Your task to perform on an android device: Open Google Maps Image 0: 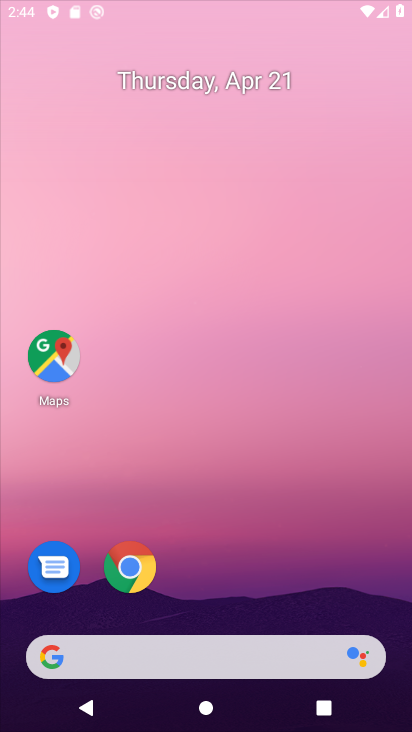
Step 0: click (176, 658)
Your task to perform on an android device: Open Google Maps Image 1: 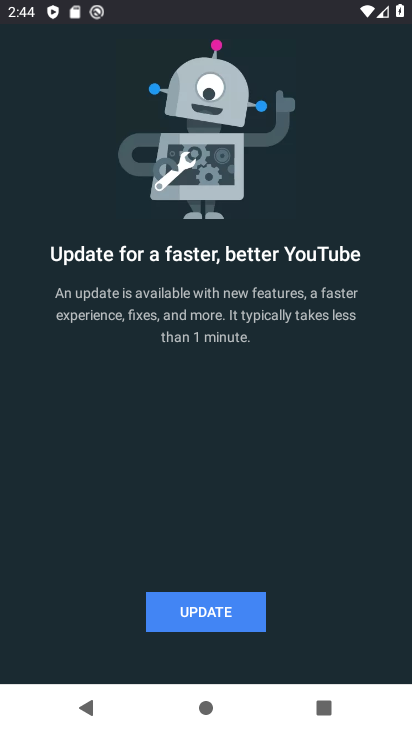
Step 1: press home button
Your task to perform on an android device: Open Google Maps Image 2: 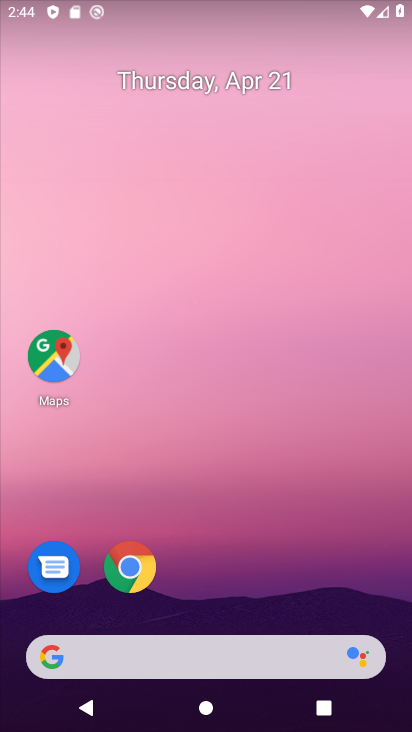
Step 2: click (61, 371)
Your task to perform on an android device: Open Google Maps Image 3: 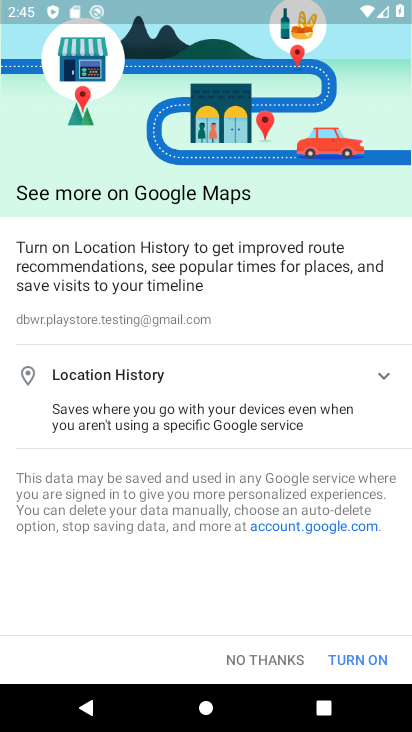
Step 3: click (382, 653)
Your task to perform on an android device: Open Google Maps Image 4: 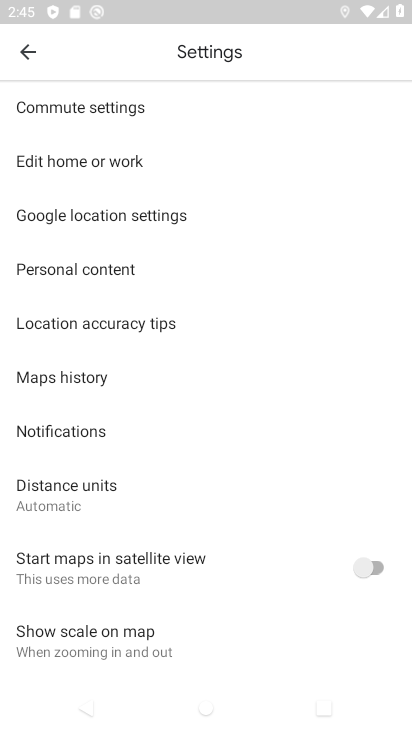
Step 4: click (26, 45)
Your task to perform on an android device: Open Google Maps Image 5: 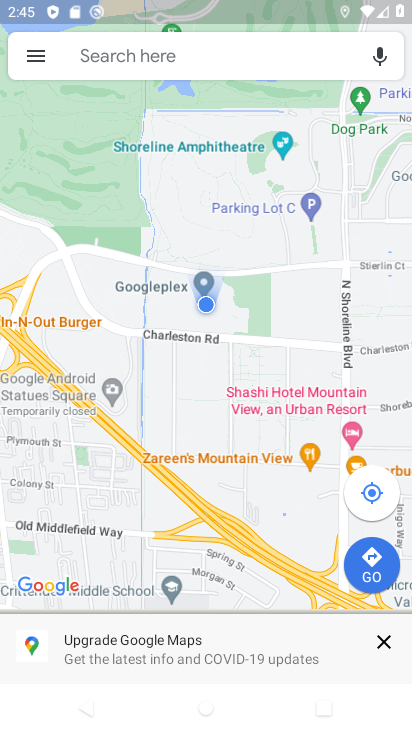
Step 5: task complete